Your task to perform on an android device: add a contact in the contacts app Image 0: 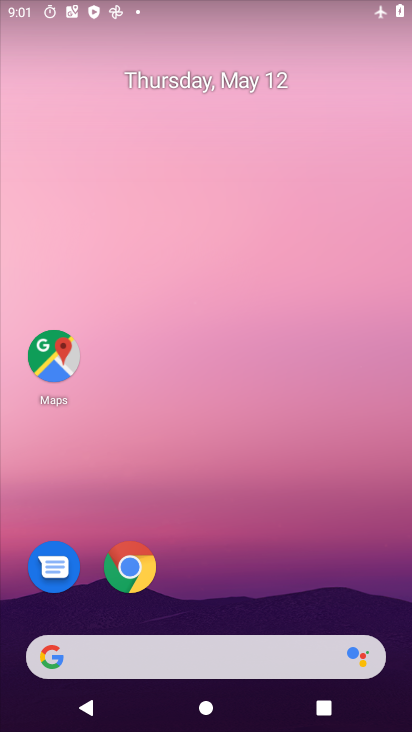
Step 0: drag from (223, 584) to (233, 220)
Your task to perform on an android device: add a contact in the contacts app Image 1: 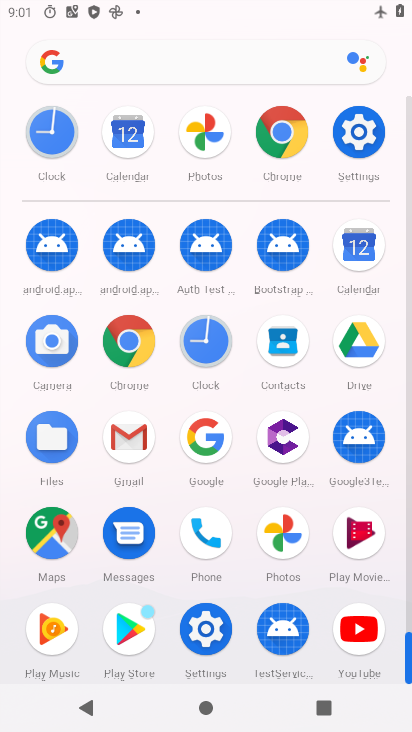
Step 1: click (296, 362)
Your task to perform on an android device: add a contact in the contacts app Image 2: 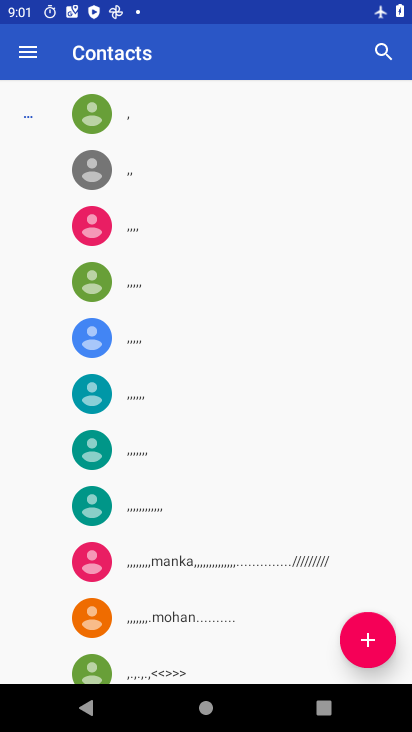
Step 2: click (362, 645)
Your task to perform on an android device: add a contact in the contacts app Image 3: 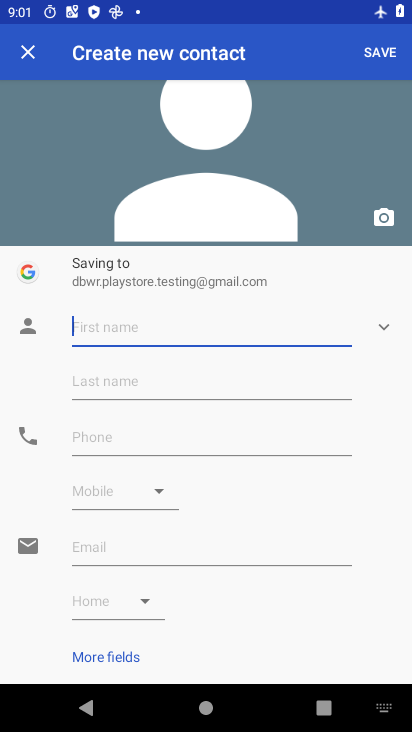
Step 3: type "kgjgk"
Your task to perform on an android device: add a contact in the contacts app Image 4: 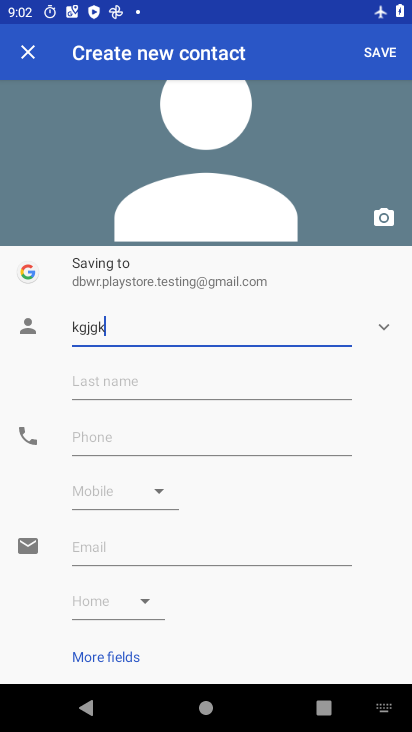
Step 4: click (126, 382)
Your task to perform on an android device: add a contact in the contacts app Image 5: 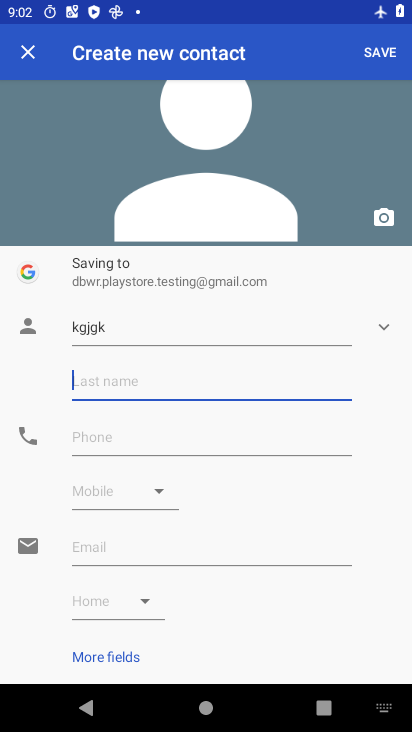
Step 5: click (153, 433)
Your task to perform on an android device: add a contact in the contacts app Image 6: 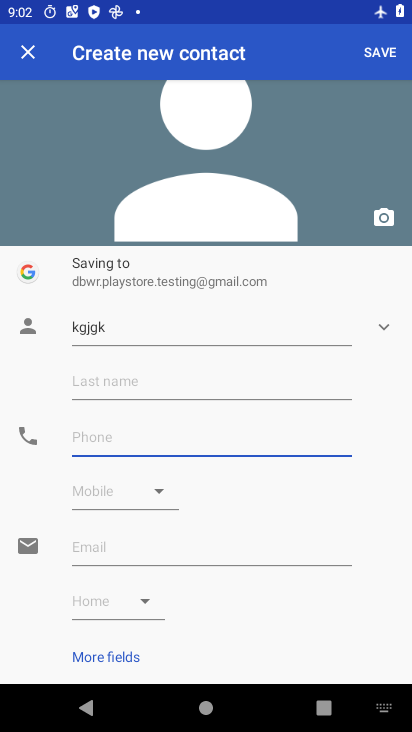
Step 6: type "98896757"
Your task to perform on an android device: add a contact in the contacts app Image 7: 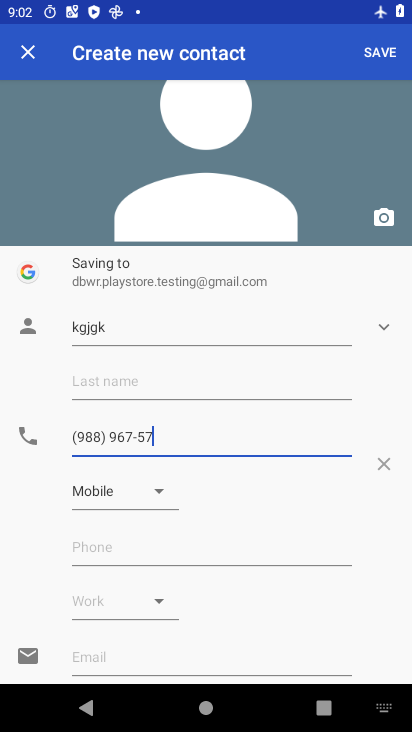
Step 7: click (380, 56)
Your task to perform on an android device: add a contact in the contacts app Image 8: 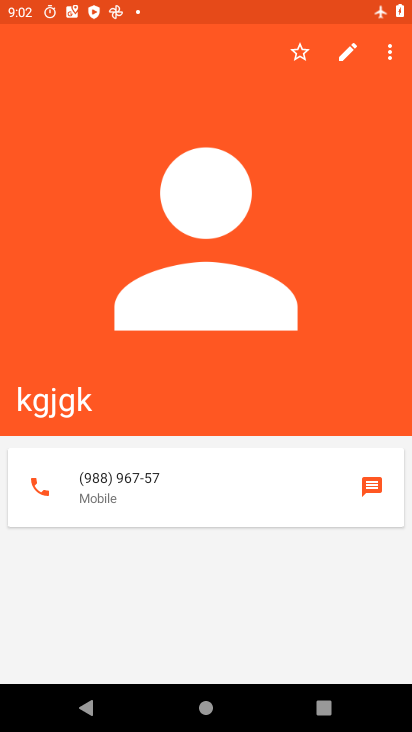
Step 8: task complete